Your task to perform on an android device: open app "ColorNote Notepad Notes" (install if not already installed) Image 0: 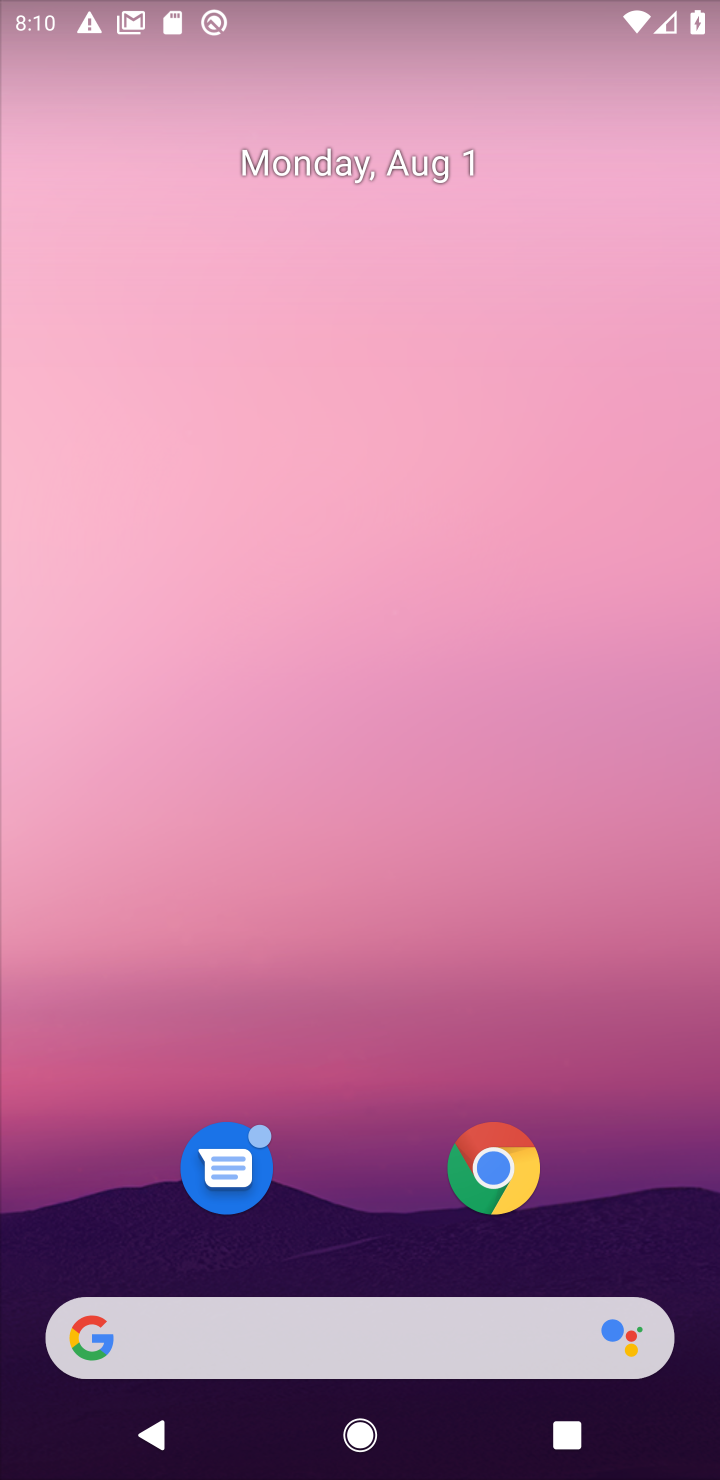
Step 0: click (65, 80)
Your task to perform on an android device: open app "ColorNote Notepad Notes" (install if not already installed) Image 1: 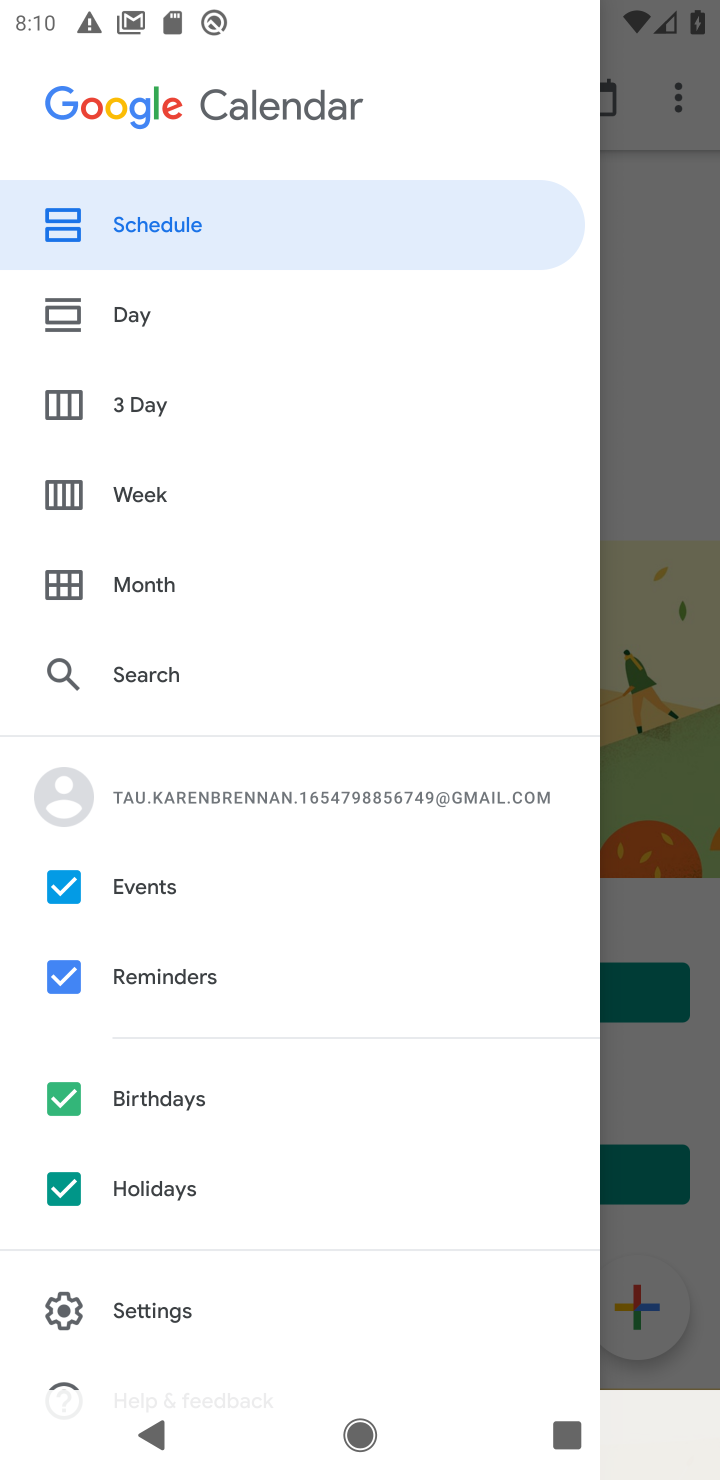
Step 1: press home button
Your task to perform on an android device: open app "ColorNote Notepad Notes" (install if not already installed) Image 2: 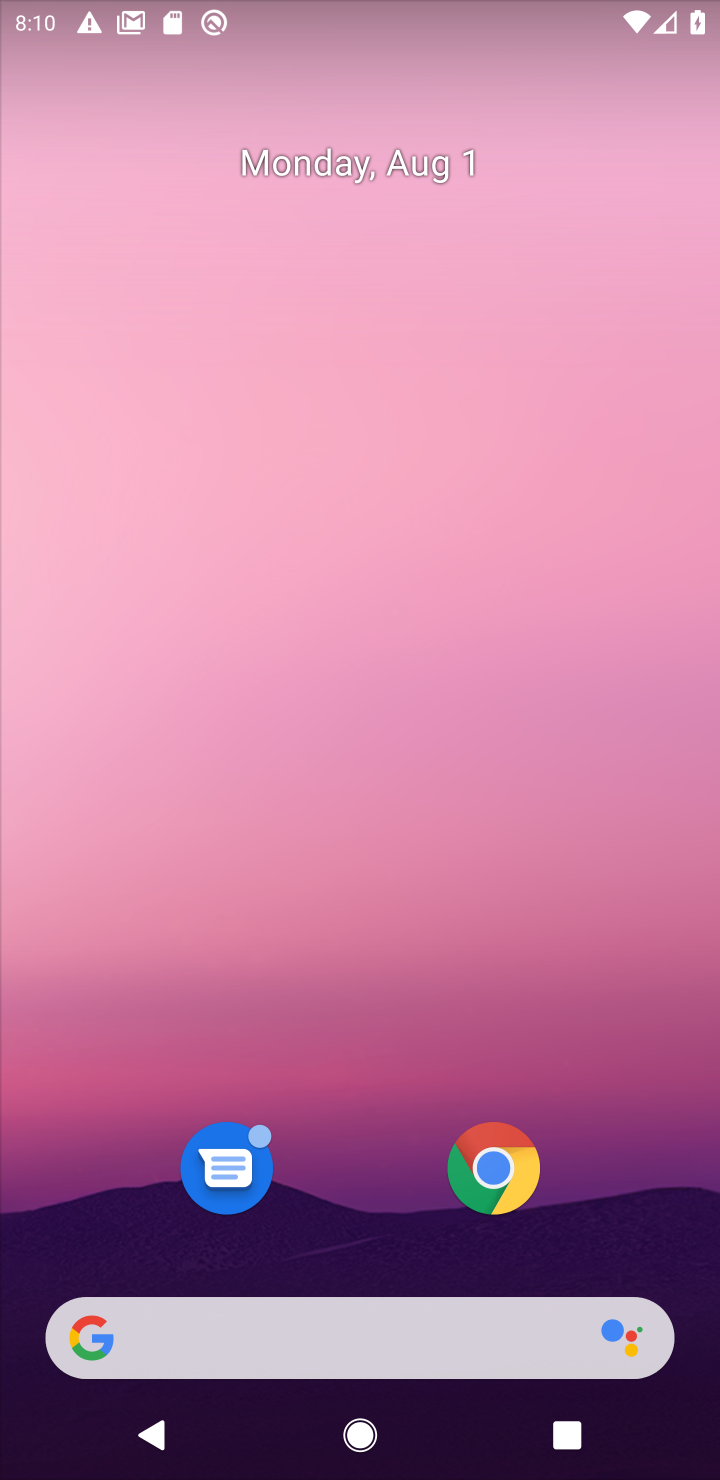
Step 2: drag from (378, 1203) to (389, 309)
Your task to perform on an android device: open app "ColorNote Notepad Notes" (install if not already installed) Image 3: 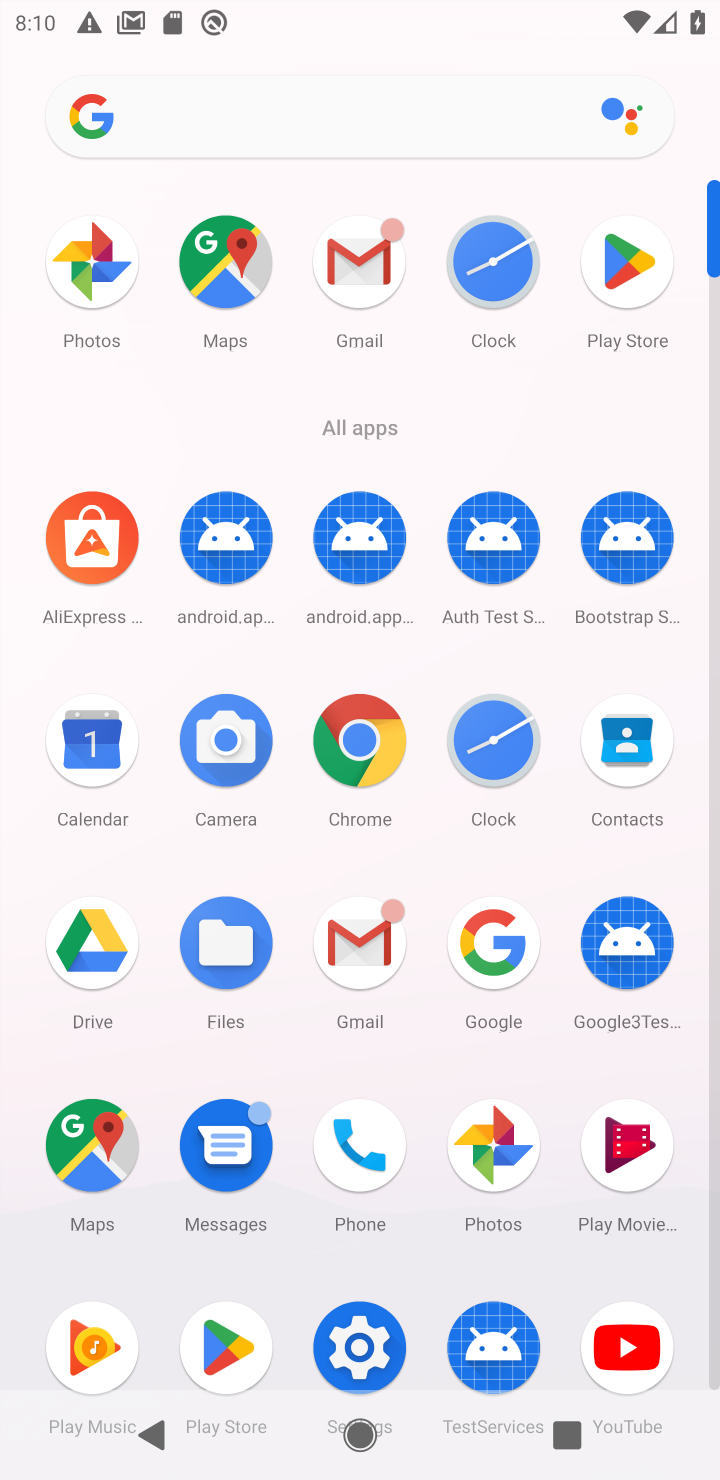
Step 3: click (648, 301)
Your task to perform on an android device: open app "ColorNote Notepad Notes" (install if not already installed) Image 4: 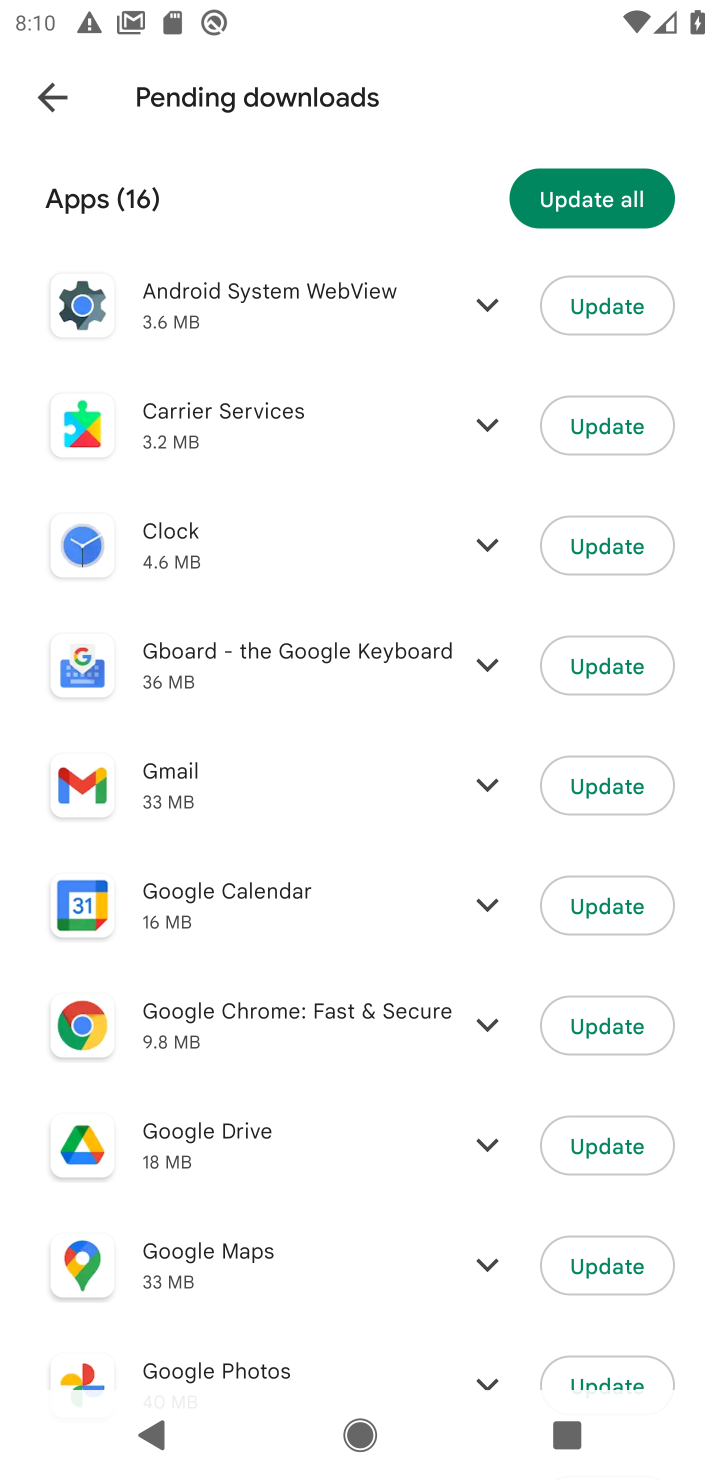
Step 4: click (58, 120)
Your task to perform on an android device: open app "ColorNote Notepad Notes" (install if not already installed) Image 5: 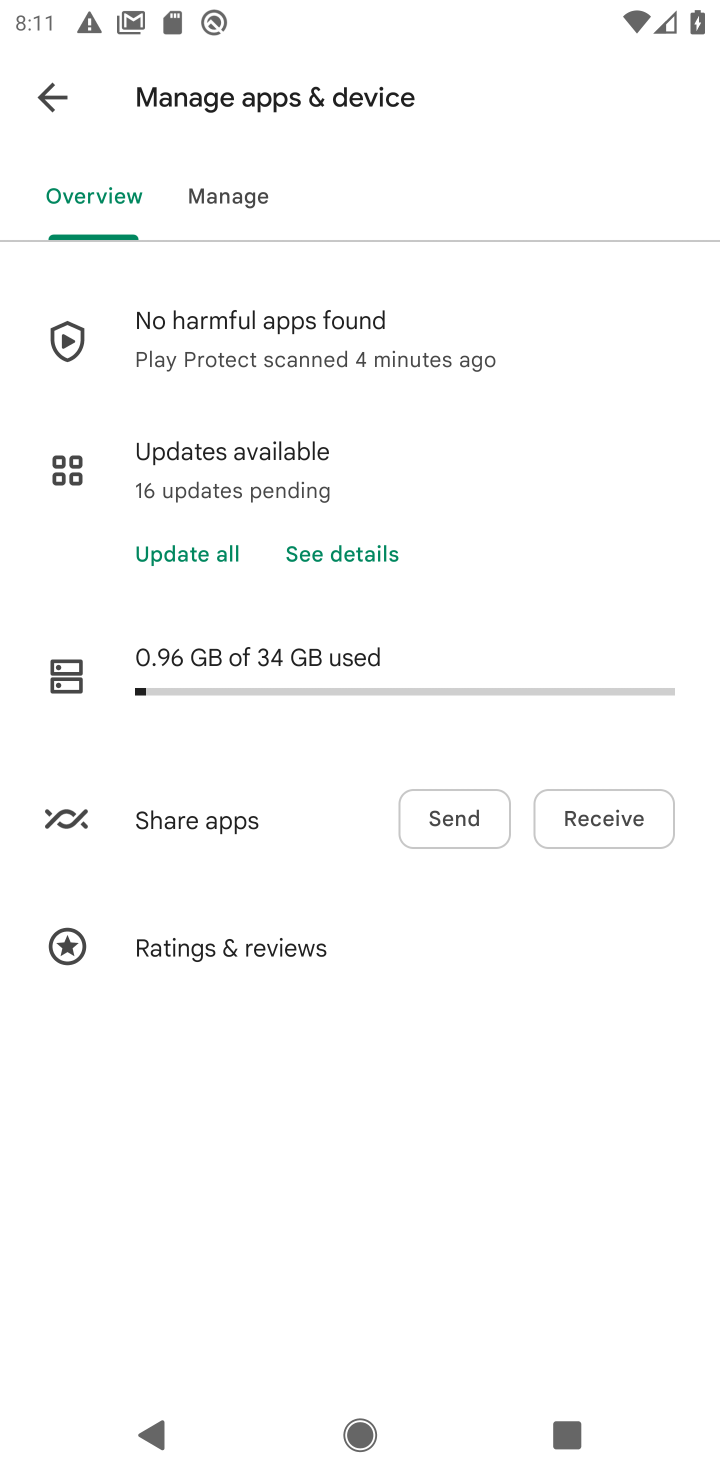
Step 5: click (38, 98)
Your task to perform on an android device: open app "ColorNote Notepad Notes" (install if not already installed) Image 6: 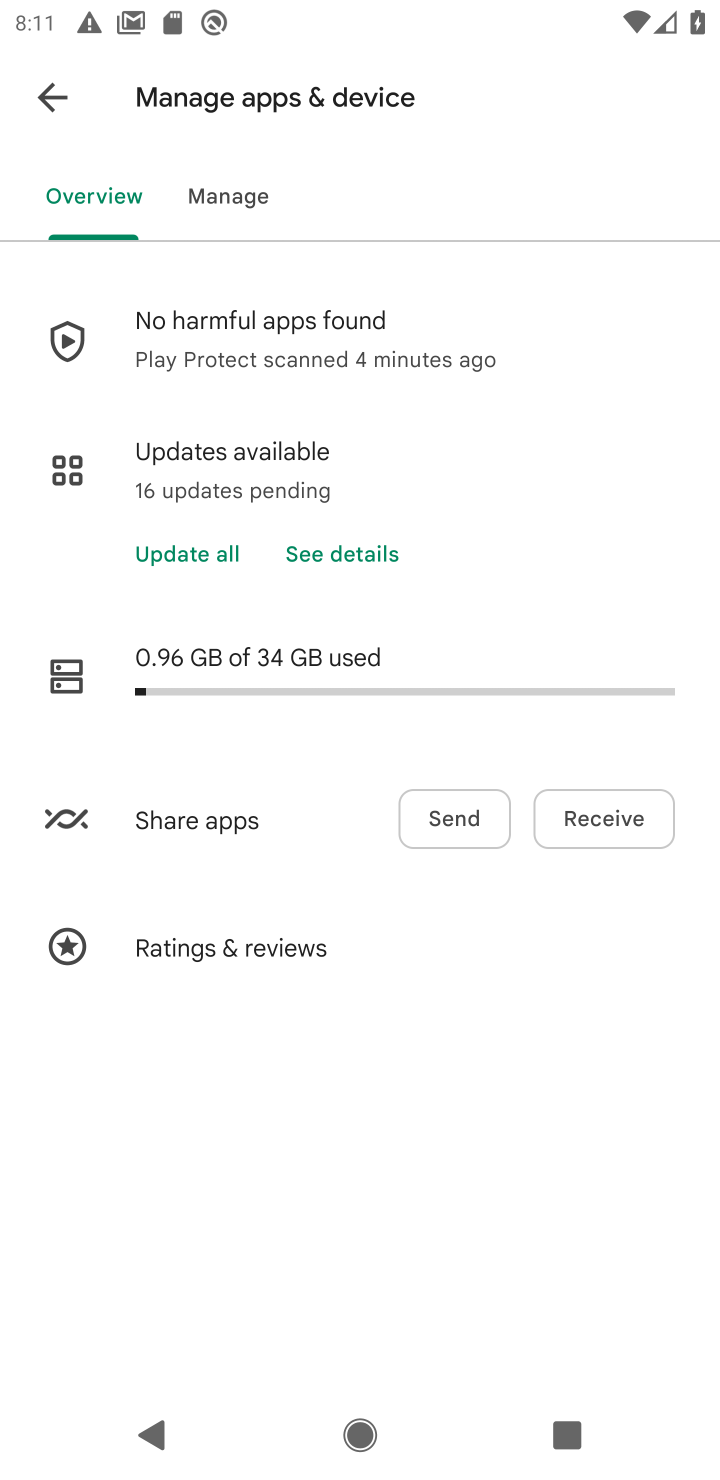
Step 6: click (47, 87)
Your task to perform on an android device: open app "ColorNote Notepad Notes" (install if not already installed) Image 7: 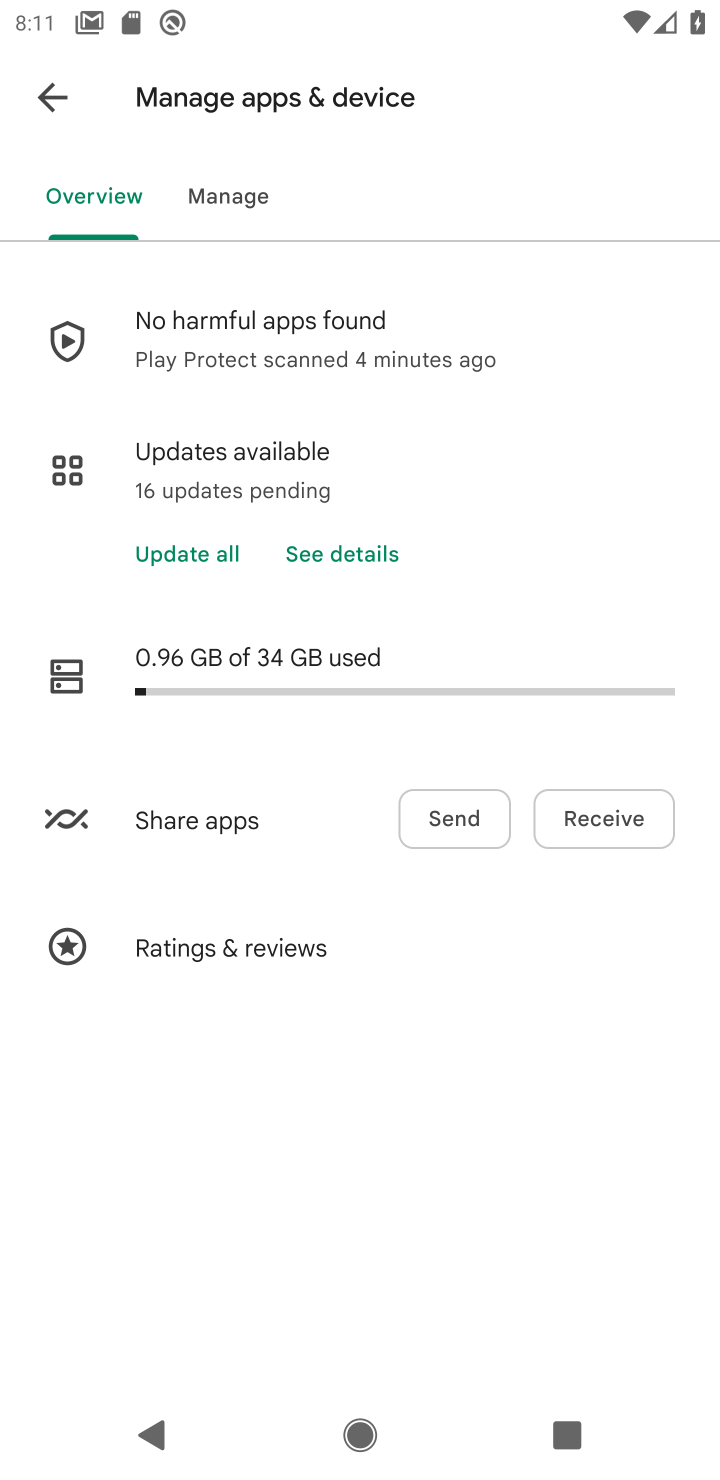
Step 7: click (51, 91)
Your task to perform on an android device: open app "ColorNote Notepad Notes" (install if not already installed) Image 8: 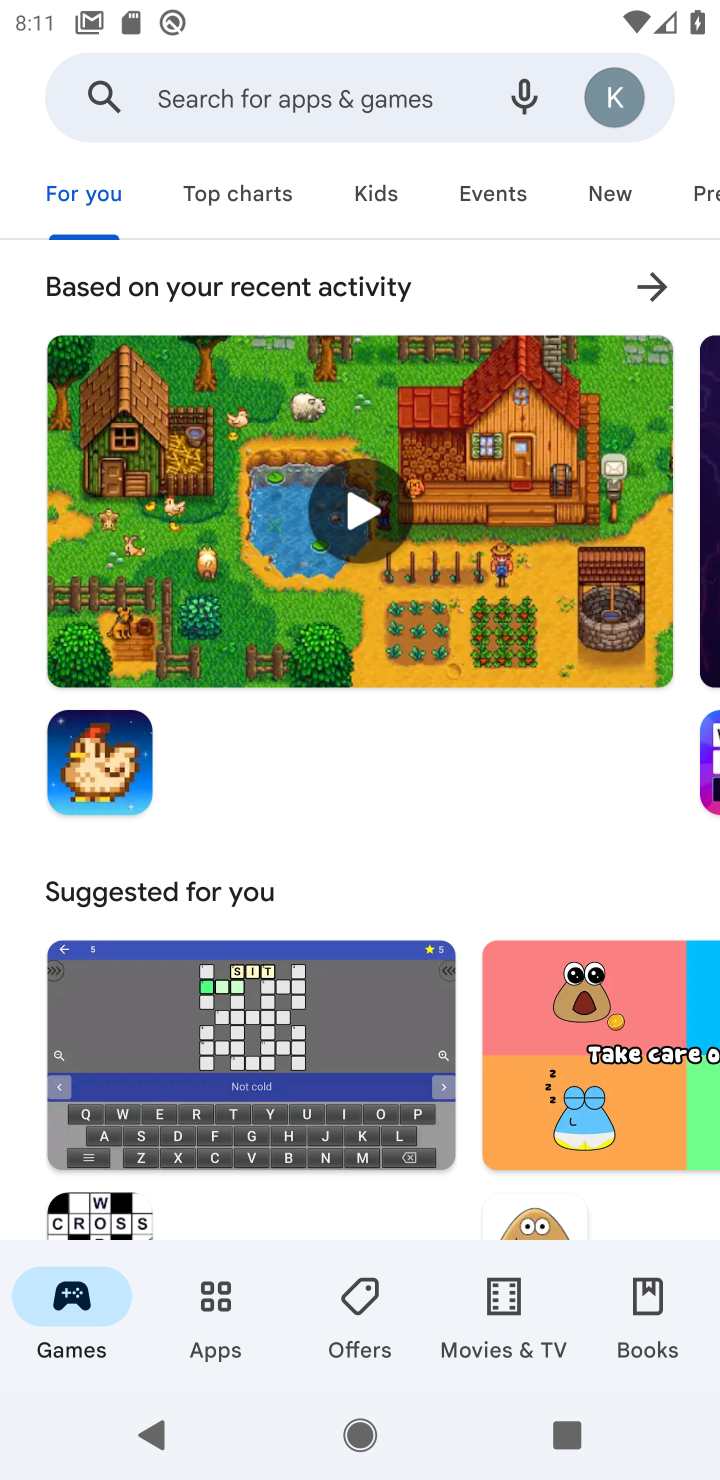
Step 8: click (242, 120)
Your task to perform on an android device: open app "ColorNote Notepad Notes" (install if not already installed) Image 9: 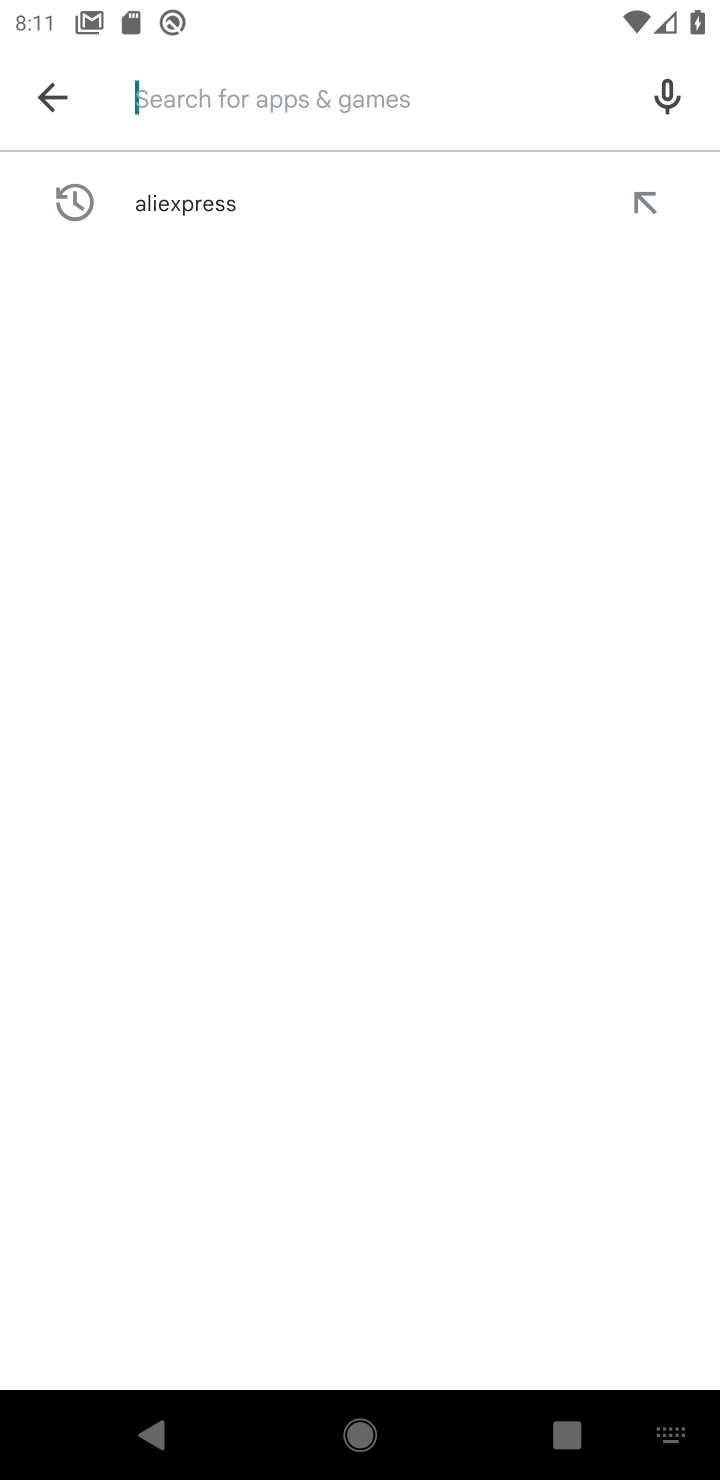
Step 9: type "colornote notepad notes"
Your task to perform on an android device: open app "ColorNote Notepad Notes" (install if not already installed) Image 10: 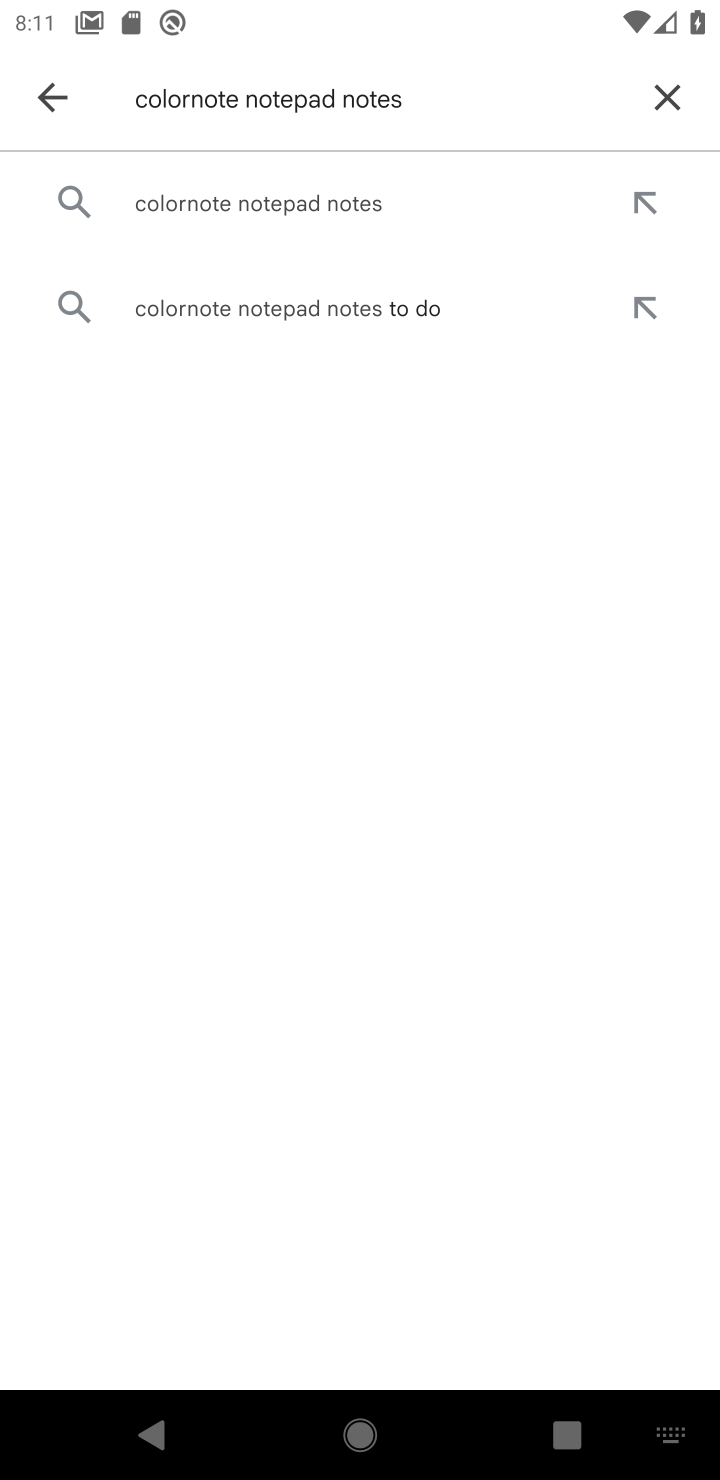
Step 10: click (299, 213)
Your task to perform on an android device: open app "ColorNote Notepad Notes" (install if not already installed) Image 11: 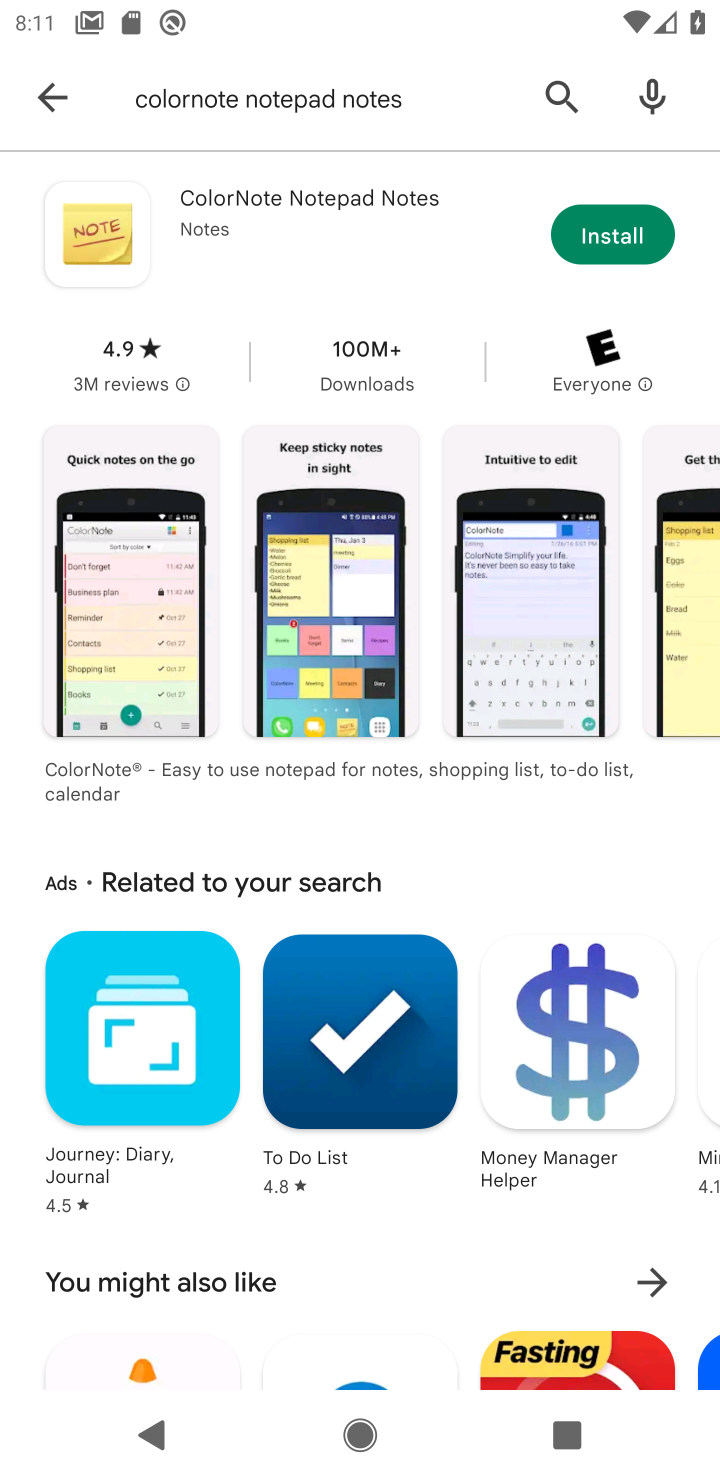
Step 11: click (598, 241)
Your task to perform on an android device: open app "ColorNote Notepad Notes" (install if not already installed) Image 12: 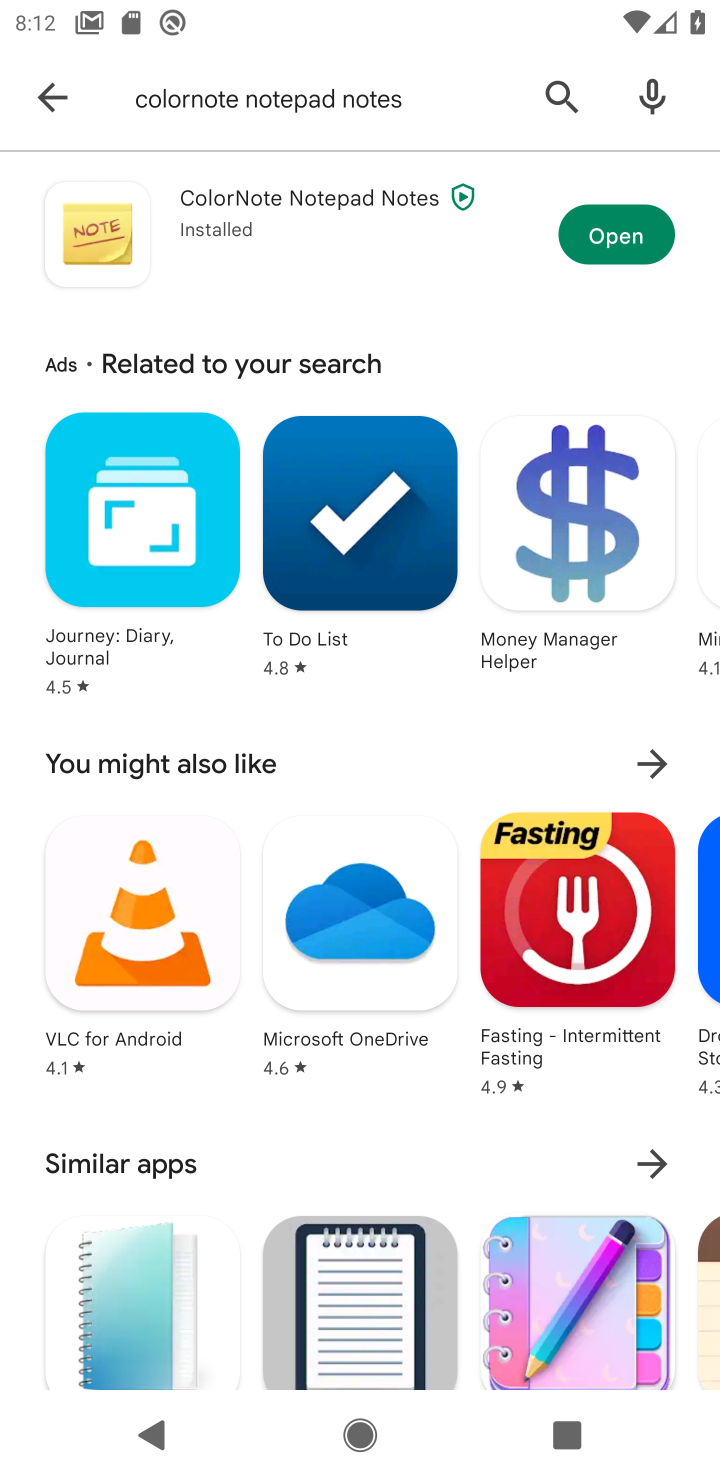
Step 12: click (666, 206)
Your task to perform on an android device: open app "ColorNote Notepad Notes" (install if not already installed) Image 13: 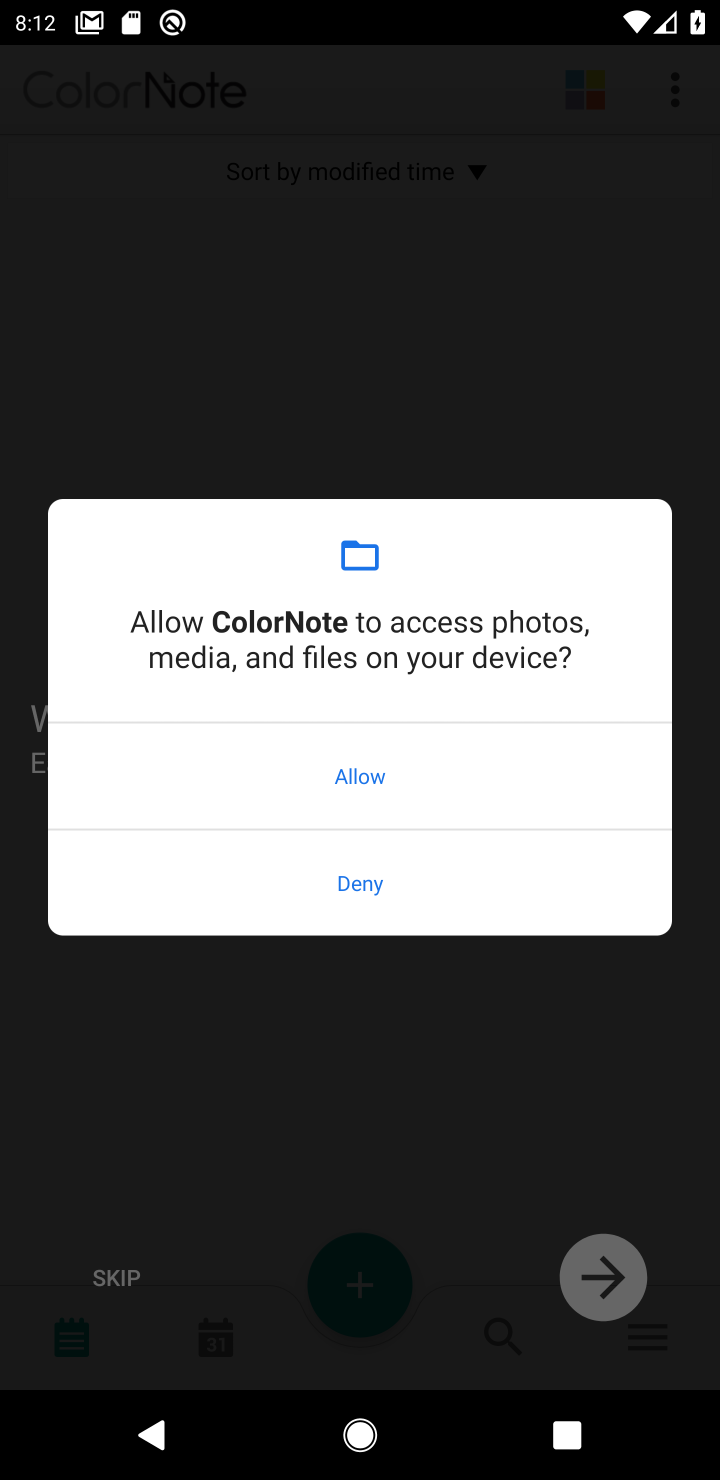
Step 13: click (439, 779)
Your task to perform on an android device: open app "ColorNote Notepad Notes" (install if not already installed) Image 14: 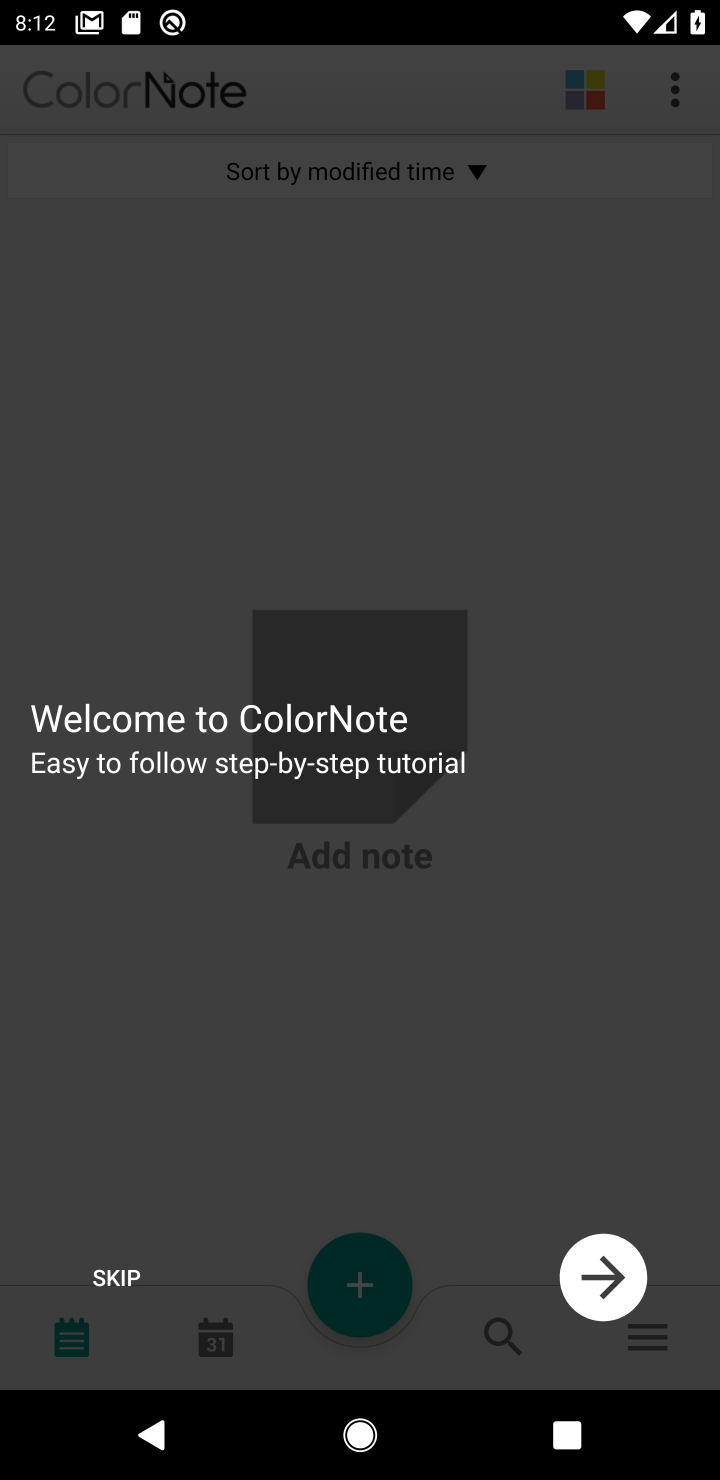
Step 14: click (421, 906)
Your task to perform on an android device: open app "ColorNote Notepad Notes" (install if not already installed) Image 15: 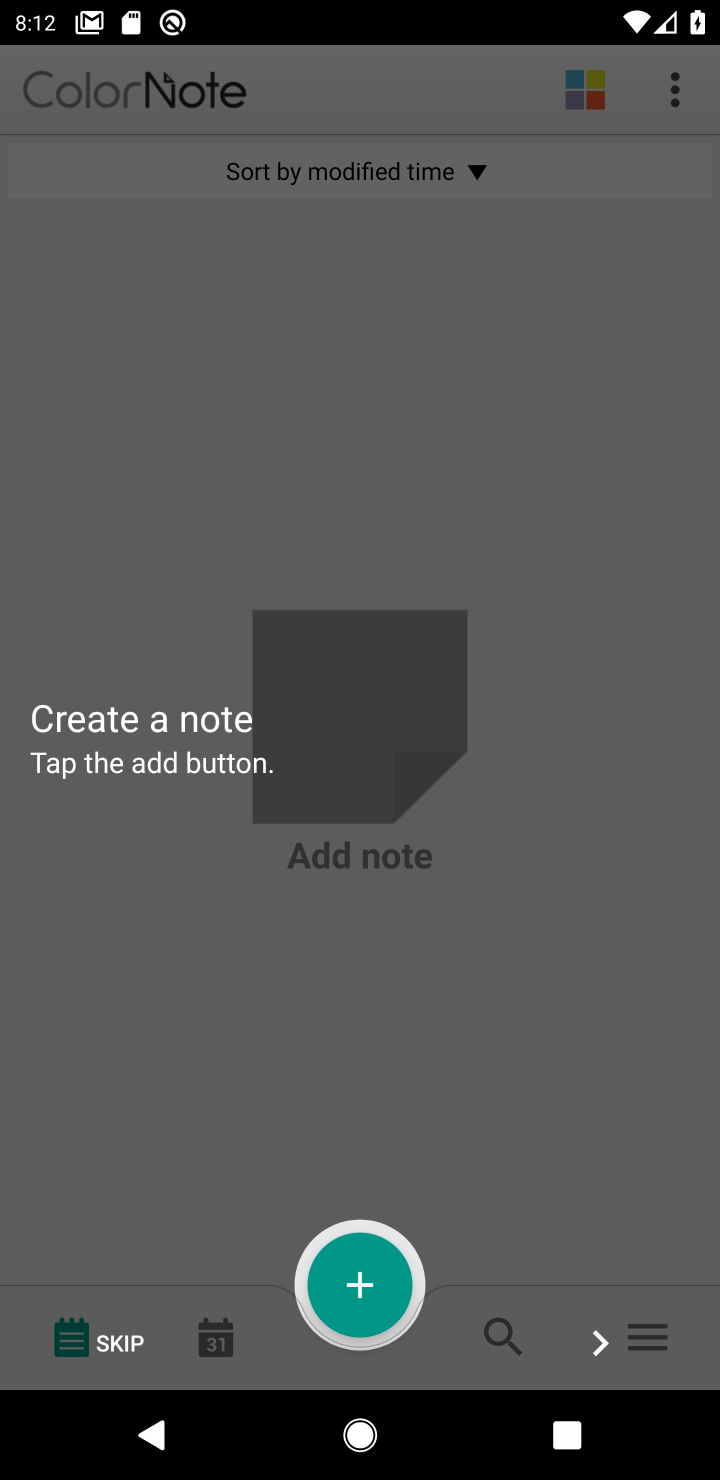
Step 15: task complete